Your task to perform on an android device: Is it going to rain this weekend? Image 0: 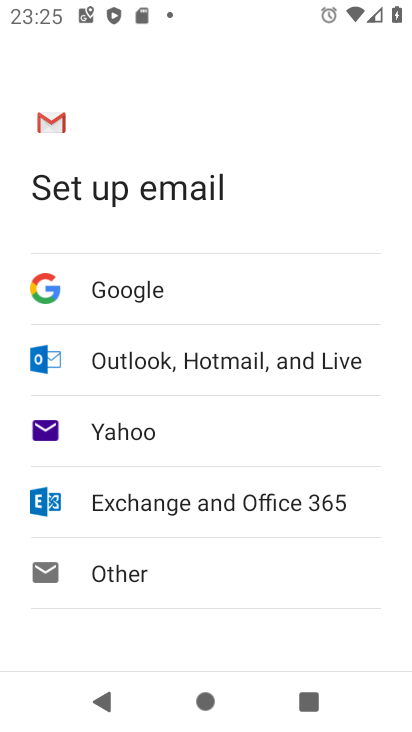
Step 0: press home button
Your task to perform on an android device: Is it going to rain this weekend? Image 1: 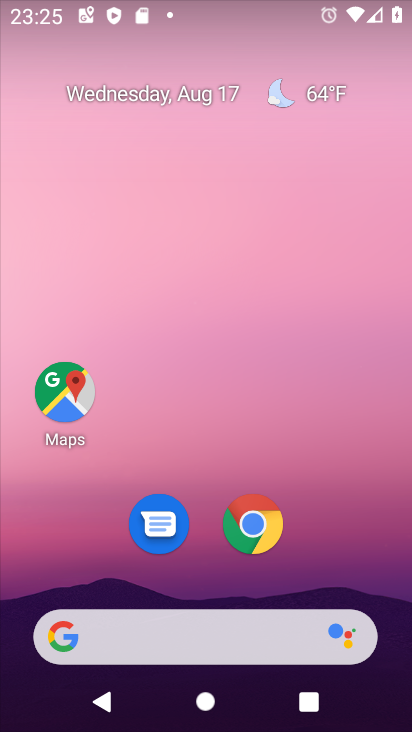
Step 1: click (321, 91)
Your task to perform on an android device: Is it going to rain this weekend? Image 2: 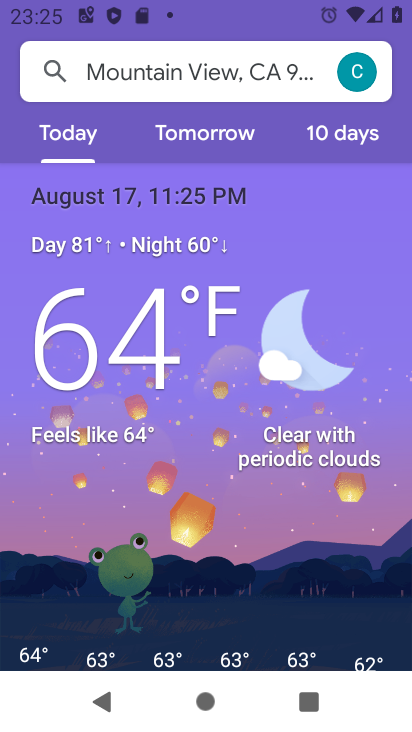
Step 2: click (350, 131)
Your task to perform on an android device: Is it going to rain this weekend? Image 3: 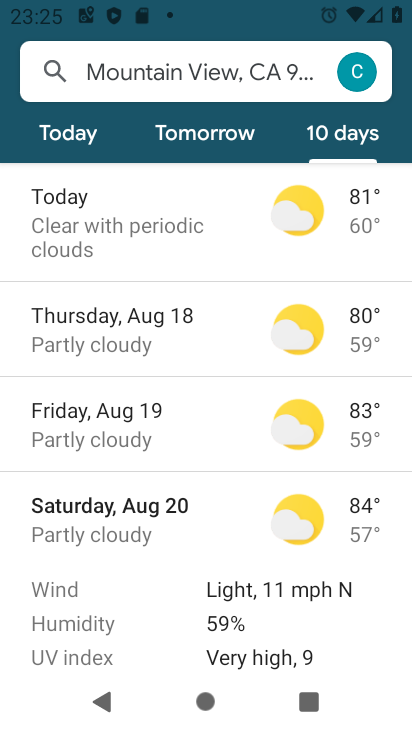
Step 3: task complete